Your task to perform on an android device: Go to settings Image 0: 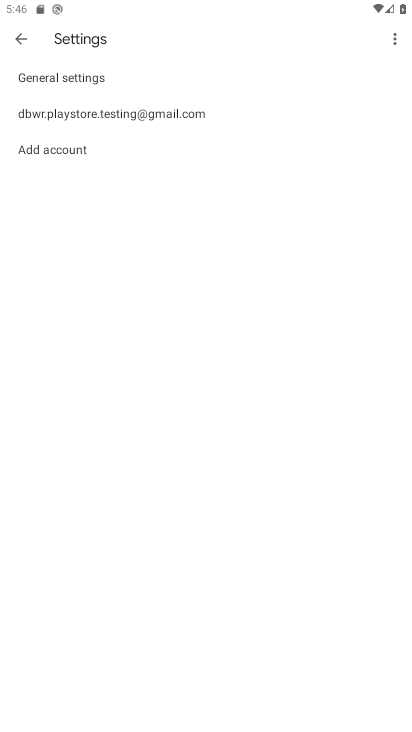
Step 0: press home button
Your task to perform on an android device: Go to settings Image 1: 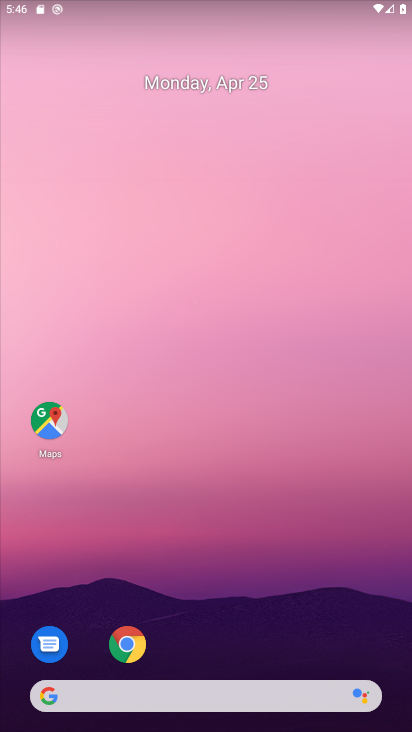
Step 1: drag from (267, 581) to (215, 114)
Your task to perform on an android device: Go to settings Image 2: 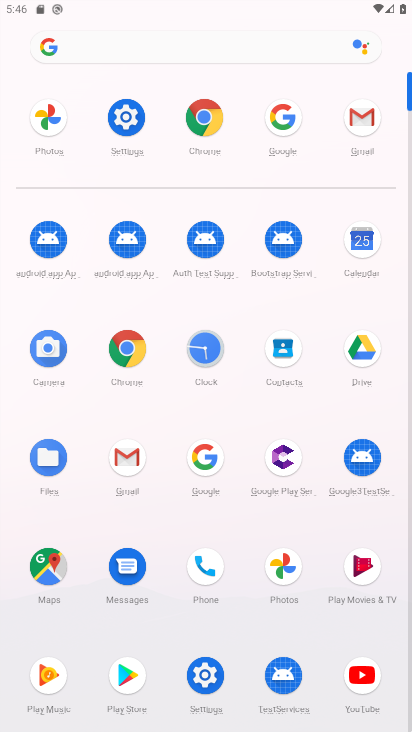
Step 2: click (129, 113)
Your task to perform on an android device: Go to settings Image 3: 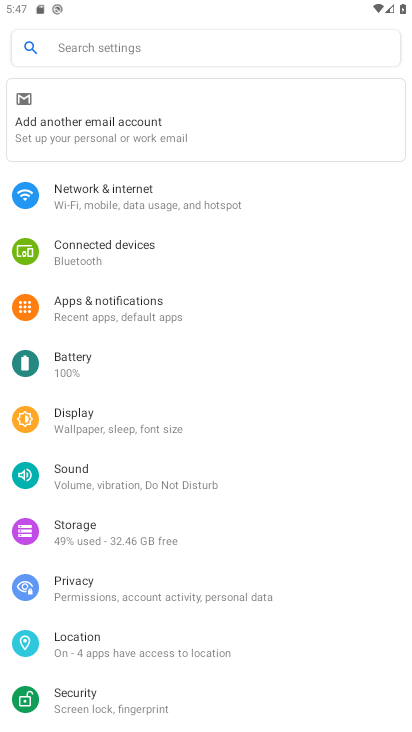
Step 3: task complete